Your task to perform on an android device: Do I have any events this weekend? Image 0: 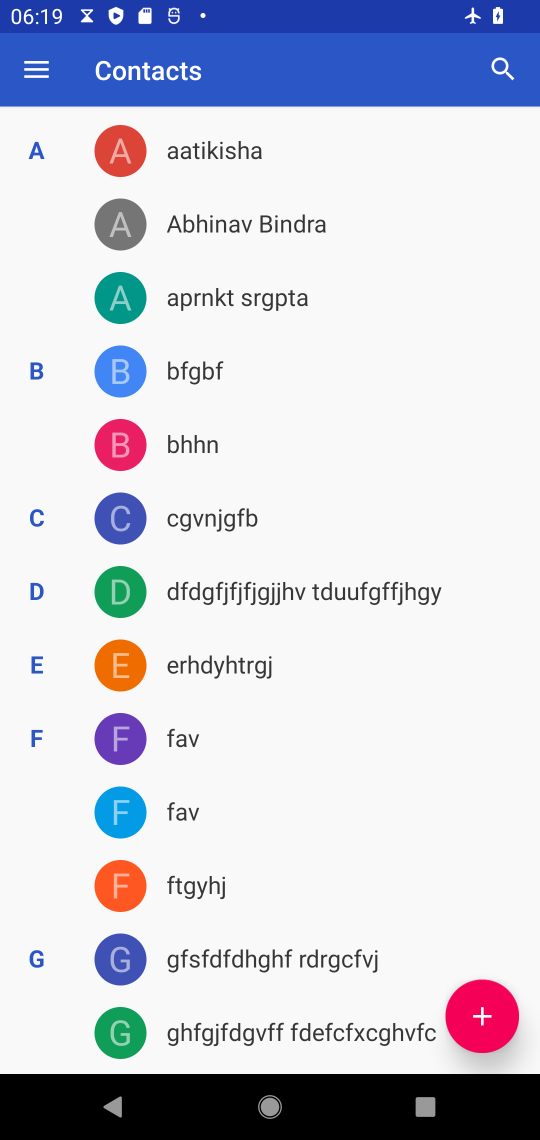
Step 0: press home button
Your task to perform on an android device: Do I have any events this weekend? Image 1: 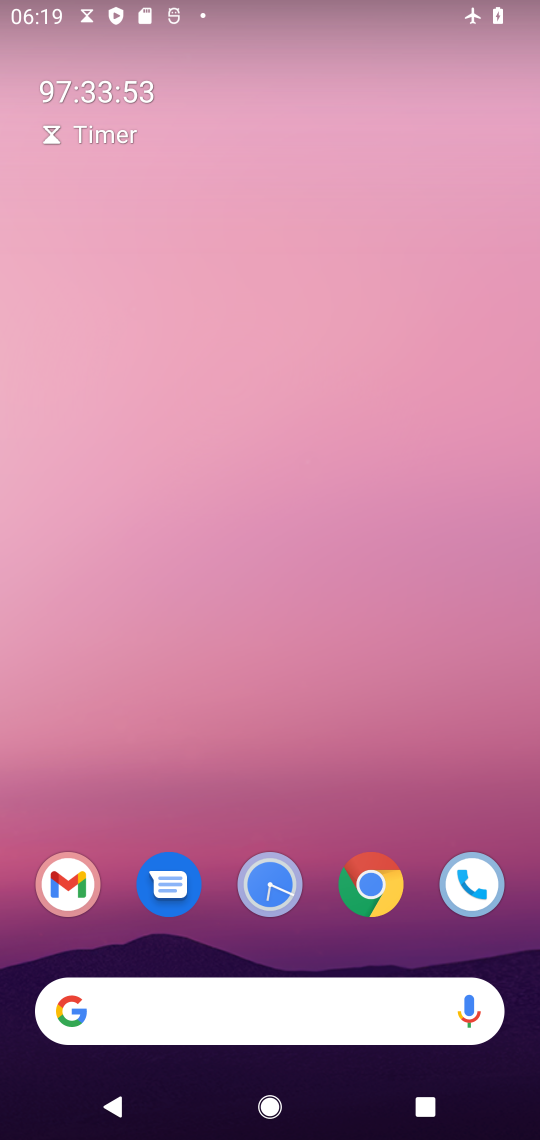
Step 1: drag from (279, 337) to (279, 263)
Your task to perform on an android device: Do I have any events this weekend? Image 2: 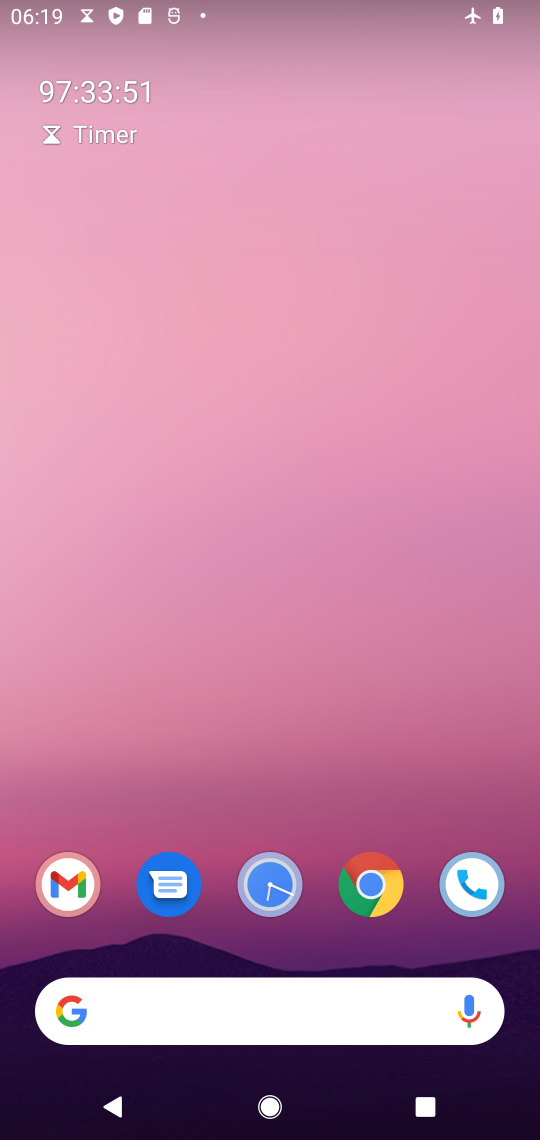
Step 2: drag from (200, 900) to (302, 112)
Your task to perform on an android device: Do I have any events this weekend? Image 3: 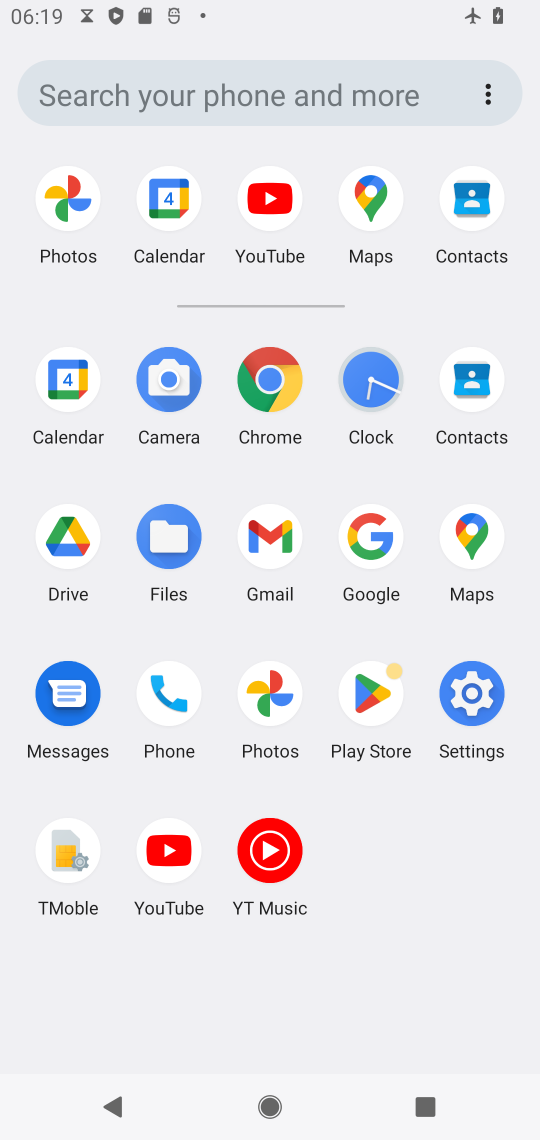
Step 3: click (255, 367)
Your task to perform on an android device: Do I have any events this weekend? Image 4: 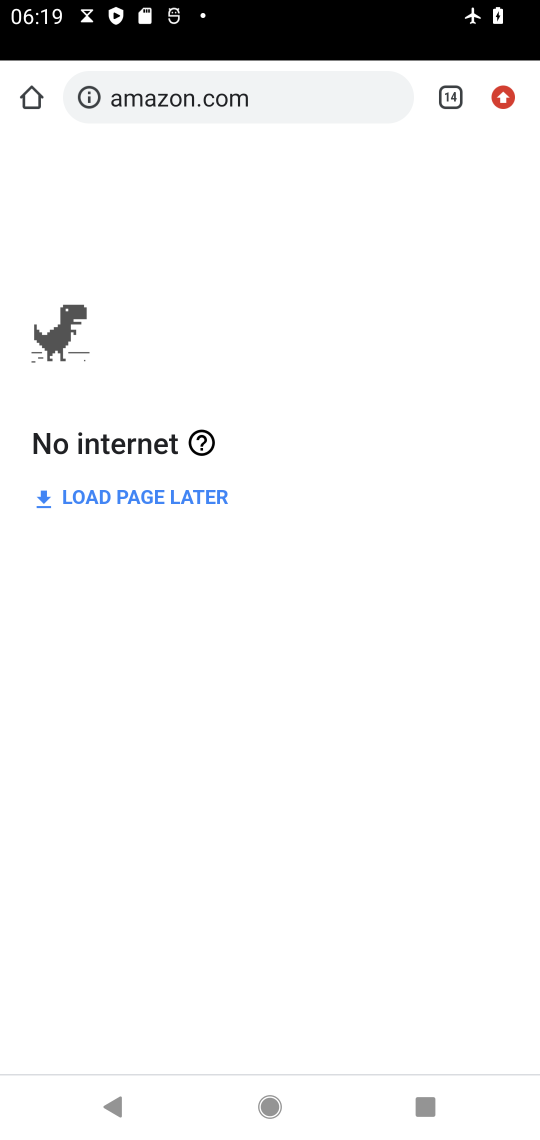
Step 4: click (509, 68)
Your task to perform on an android device: Do I have any events this weekend? Image 5: 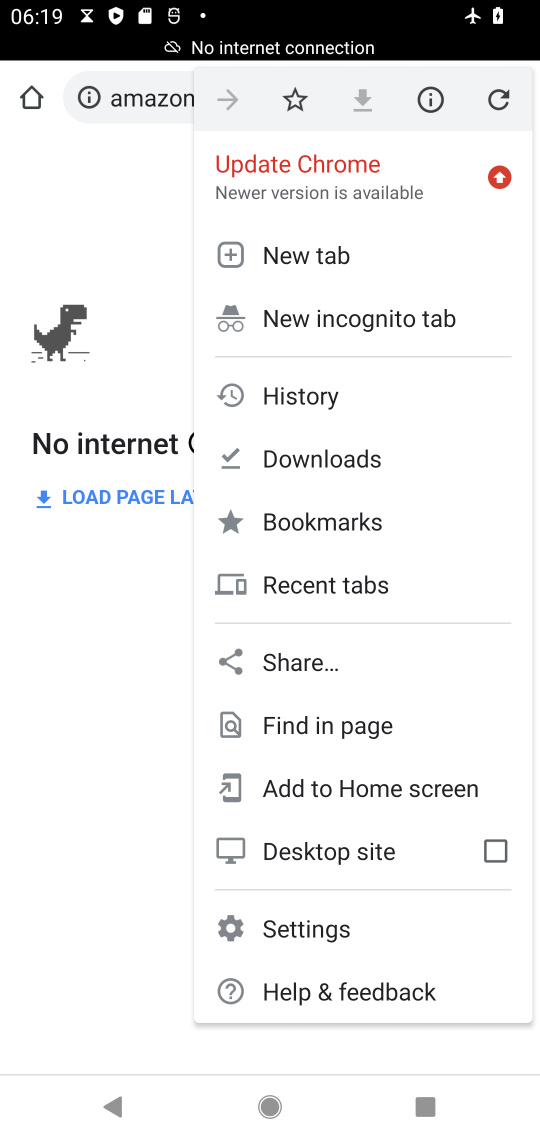
Step 5: click (304, 245)
Your task to perform on an android device: Do I have any events this weekend? Image 6: 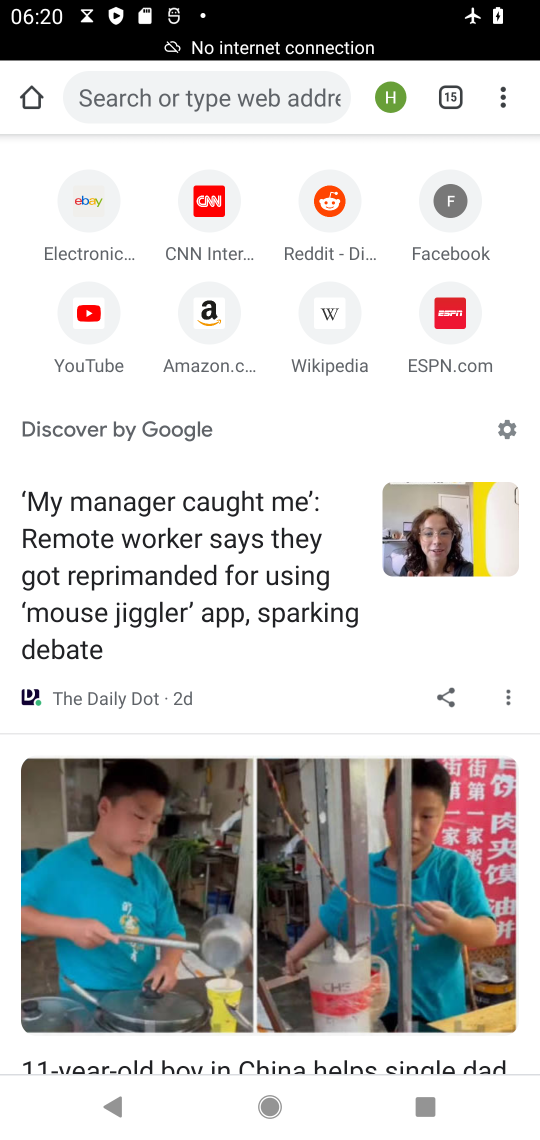
Step 6: click (276, 79)
Your task to perform on an android device: Do I have any events this weekend? Image 7: 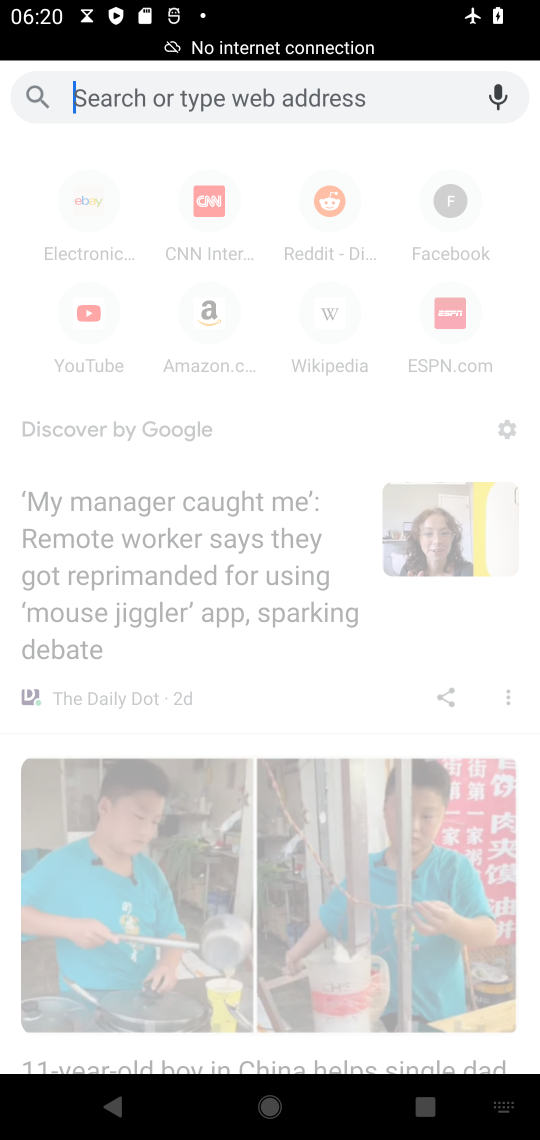
Step 7: click (226, 91)
Your task to perform on an android device: Do I have any events this weekend? Image 8: 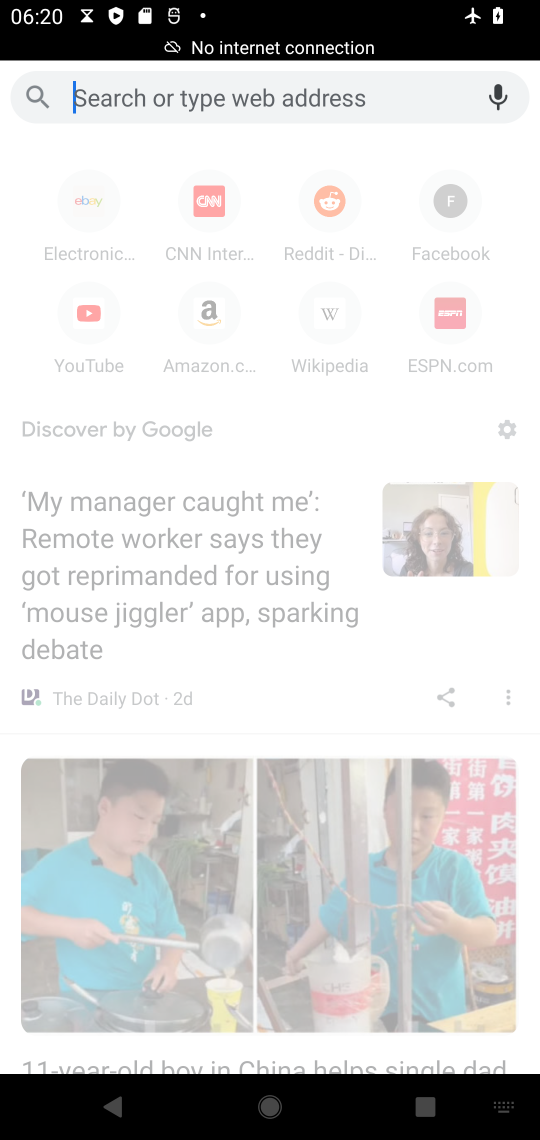
Step 8: type "Do I have any events this weekend? "
Your task to perform on an android device: Do I have any events this weekend? Image 9: 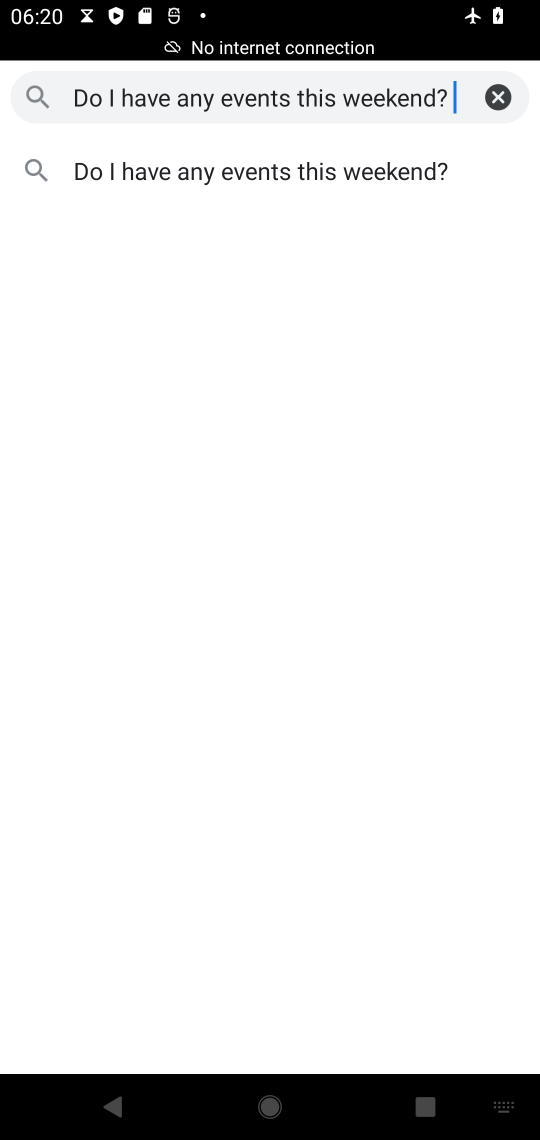
Step 9: click (148, 166)
Your task to perform on an android device: Do I have any events this weekend? Image 10: 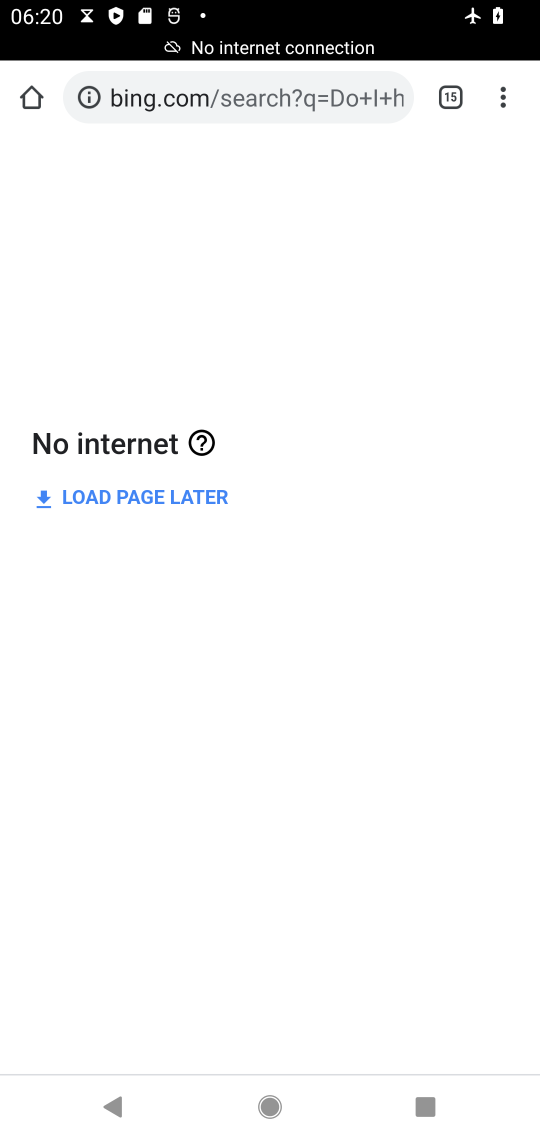
Step 10: task complete